Your task to perform on an android device: add a contact in the contacts app Image 0: 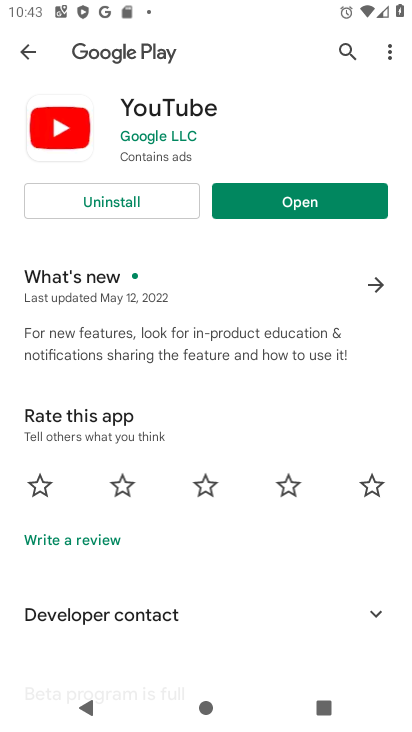
Step 0: press home button
Your task to perform on an android device: add a contact in the contacts app Image 1: 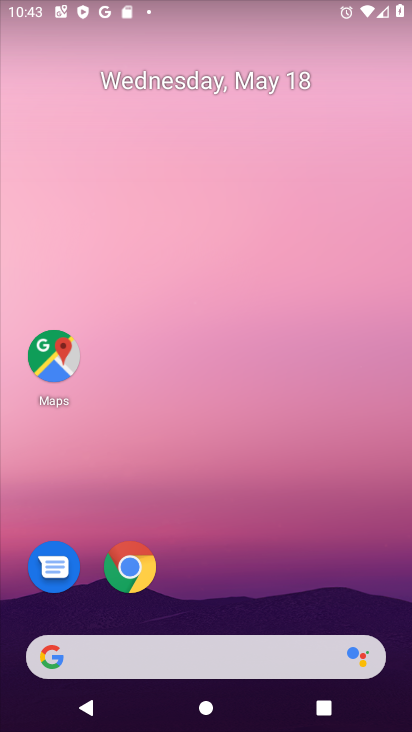
Step 1: drag from (195, 651) to (179, 172)
Your task to perform on an android device: add a contact in the contacts app Image 2: 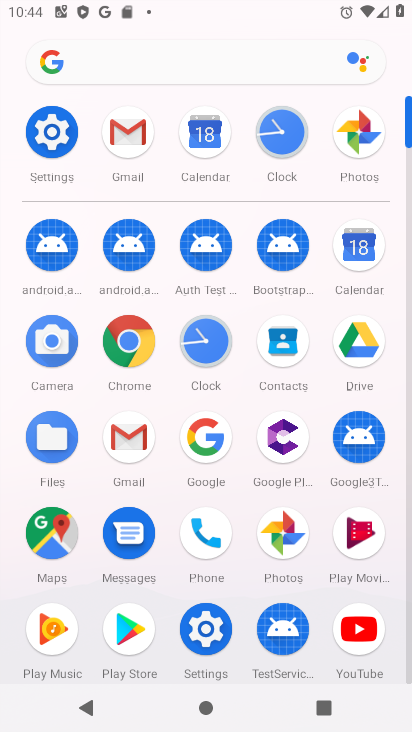
Step 2: click (289, 344)
Your task to perform on an android device: add a contact in the contacts app Image 3: 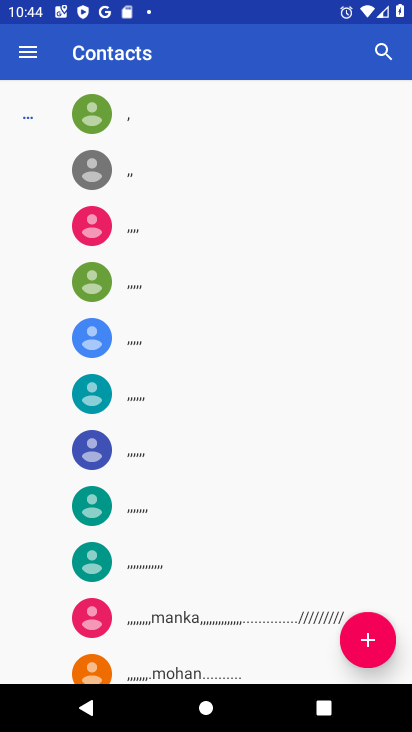
Step 3: click (364, 647)
Your task to perform on an android device: add a contact in the contacts app Image 4: 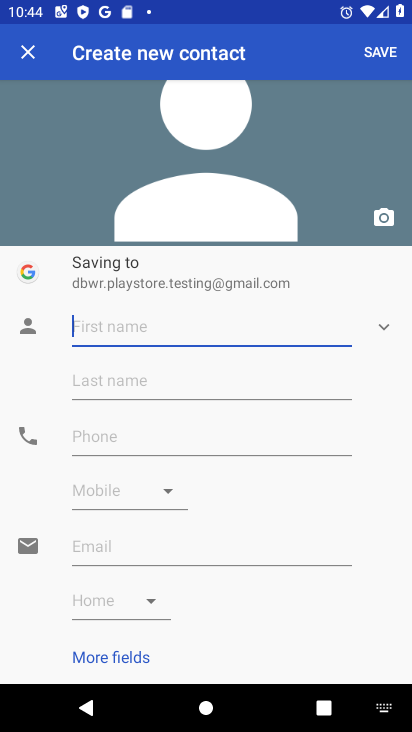
Step 4: type "sdhkfs"
Your task to perform on an android device: add a contact in the contacts app Image 5: 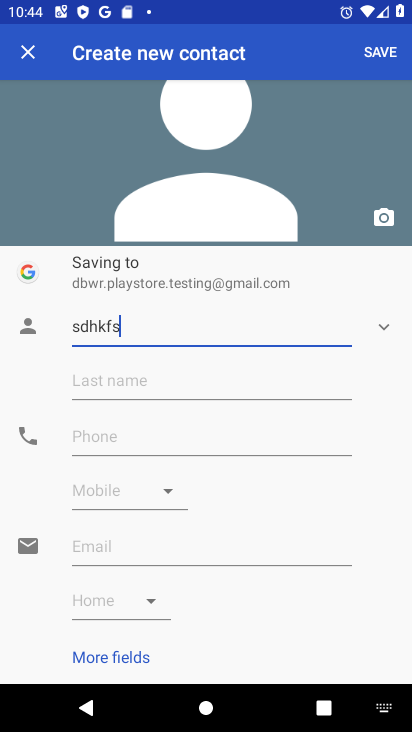
Step 5: click (176, 436)
Your task to perform on an android device: add a contact in the contacts app Image 6: 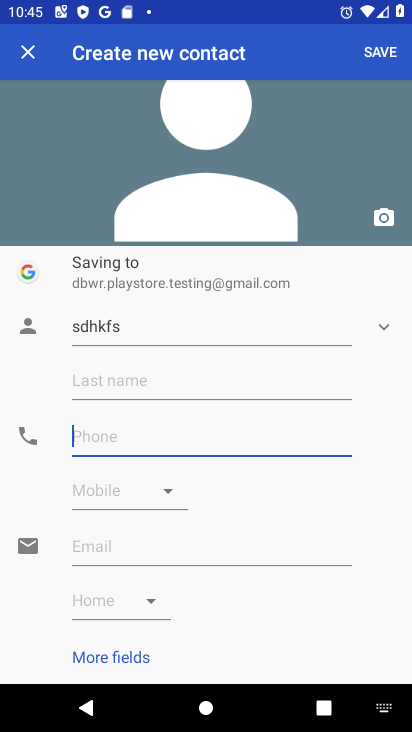
Step 6: type "29384922"
Your task to perform on an android device: add a contact in the contacts app Image 7: 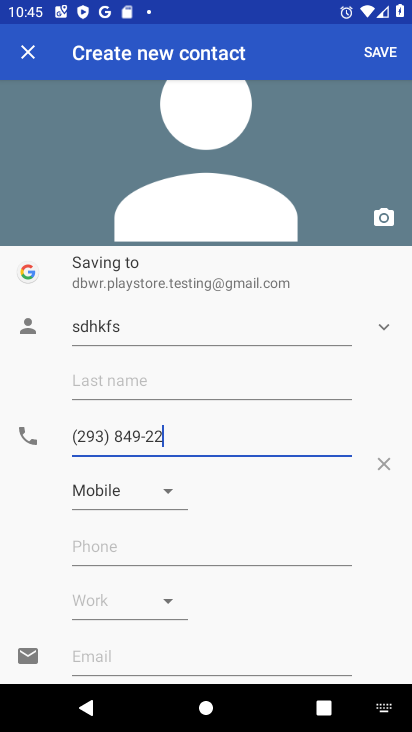
Step 7: click (381, 56)
Your task to perform on an android device: add a contact in the contacts app Image 8: 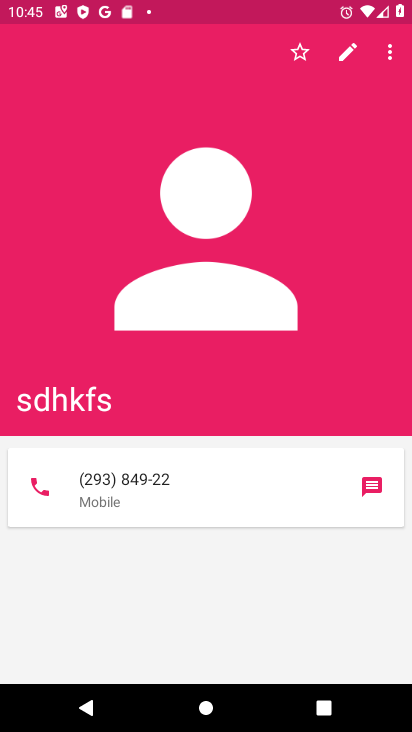
Step 8: press home button
Your task to perform on an android device: add a contact in the contacts app Image 9: 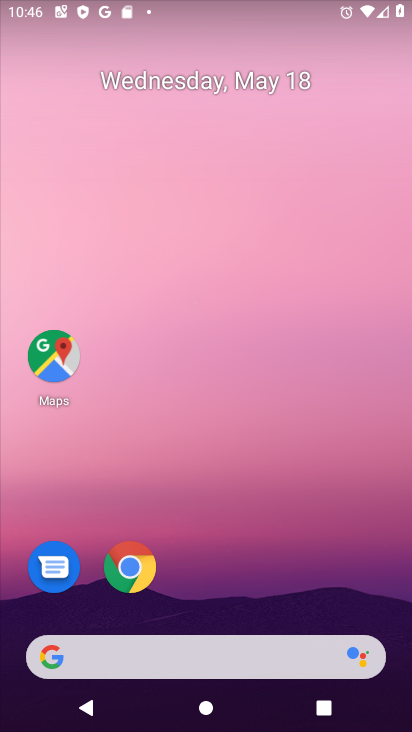
Step 9: drag from (201, 675) to (168, 95)
Your task to perform on an android device: add a contact in the contacts app Image 10: 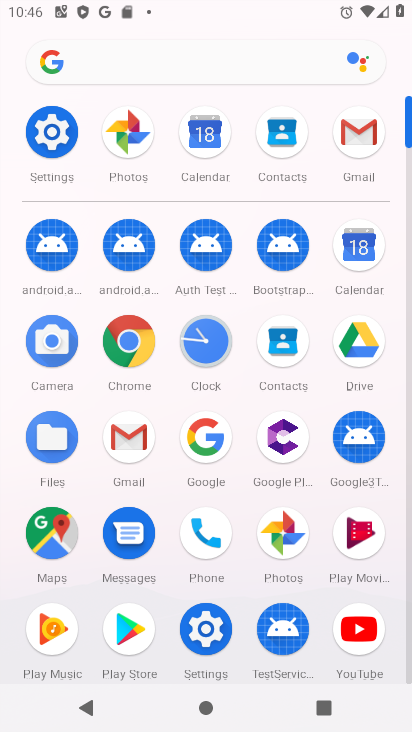
Step 10: click (279, 350)
Your task to perform on an android device: add a contact in the contacts app Image 11: 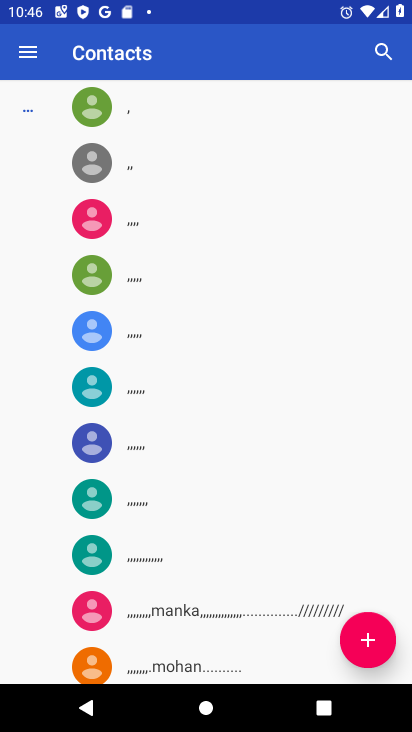
Step 11: click (383, 626)
Your task to perform on an android device: add a contact in the contacts app Image 12: 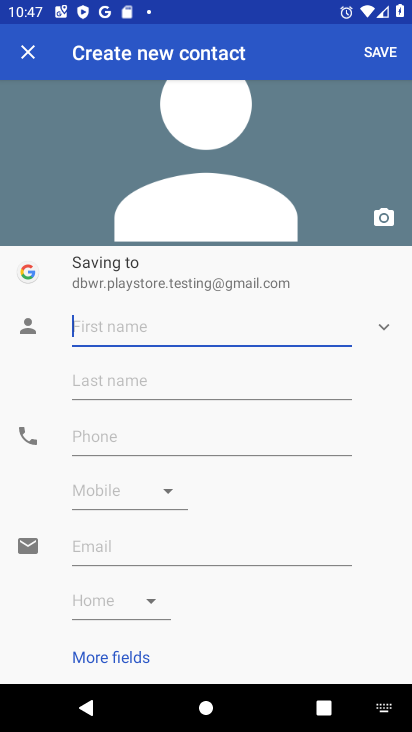
Step 12: type "vbxnbv"
Your task to perform on an android device: add a contact in the contacts app Image 13: 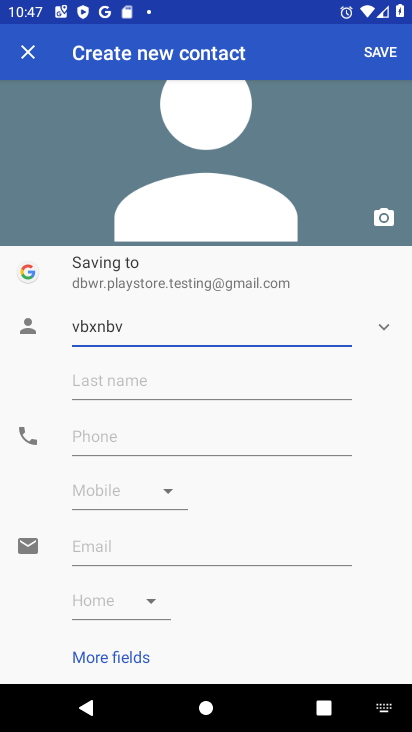
Step 13: click (177, 443)
Your task to perform on an android device: add a contact in the contacts app Image 14: 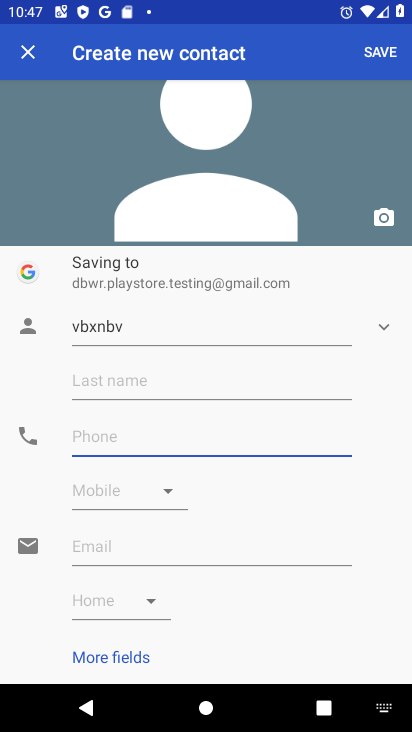
Step 14: type "5634534"
Your task to perform on an android device: add a contact in the contacts app Image 15: 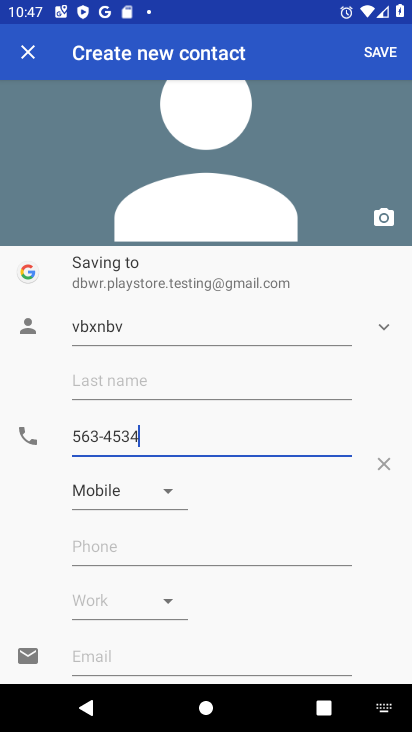
Step 15: click (388, 50)
Your task to perform on an android device: add a contact in the contacts app Image 16: 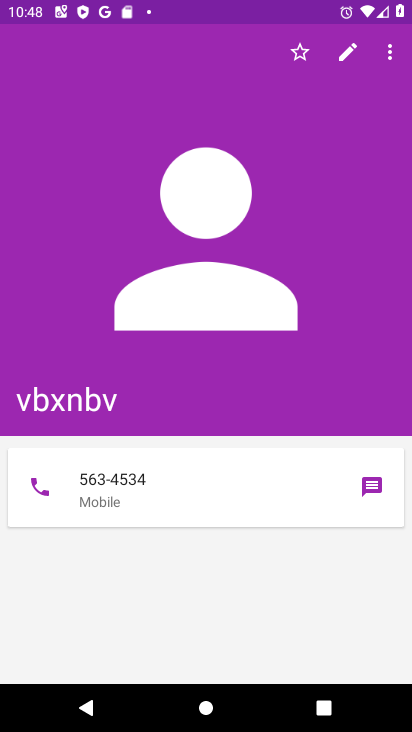
Step 16: task complete